Your task to perform on an android device: snooze an email in the gmail app Image 0: 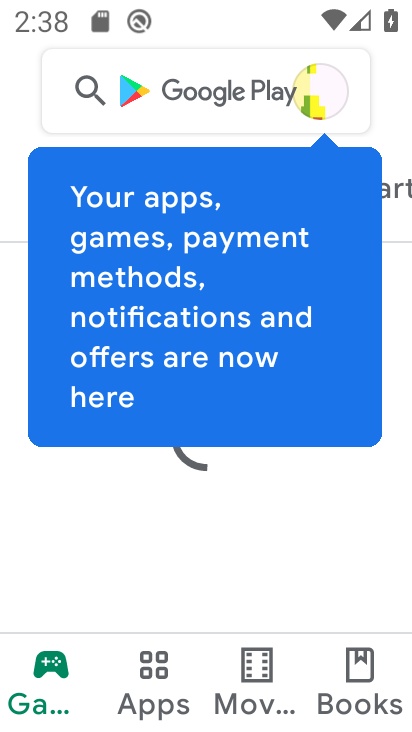
Step 0: press home button
Your task to perform on an android device: snooze an email in the gmail app Image 1: 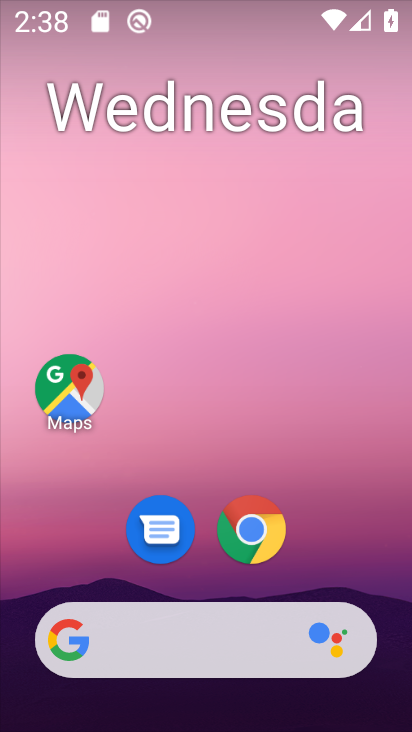
Step 1: drag from (314, 535) to (319, 120)
Your task to perform on an android device: snooze an email in the gmail app Image 2: 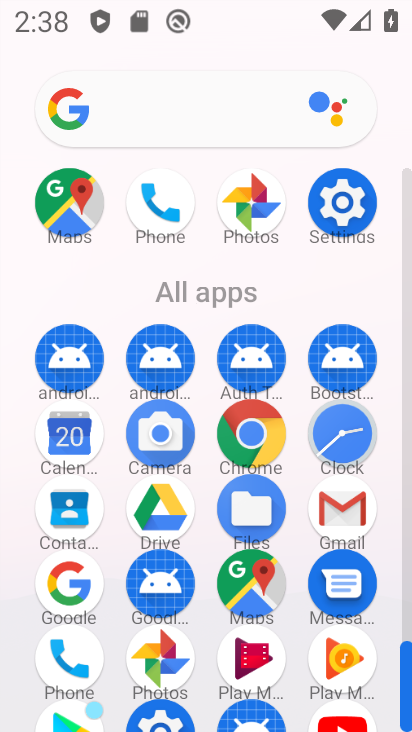
Step 2: click (325, 515)
Your task to perform on an android device: snooze an email in the gmail app Image 3: 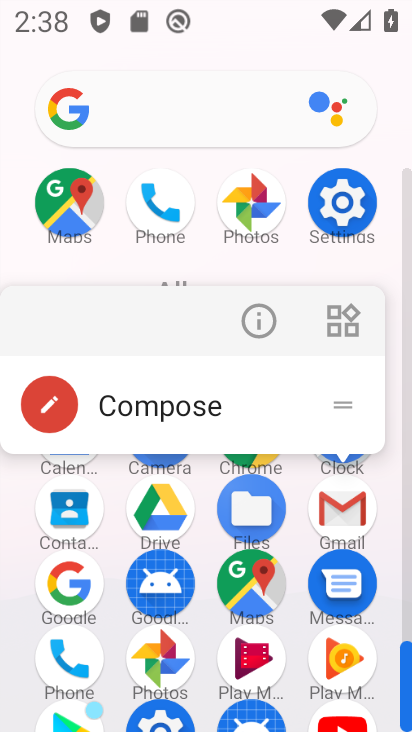
Step 3: click (325, 515)
Your task to perform on an android device: snooze an email in the gmail app Image 4: 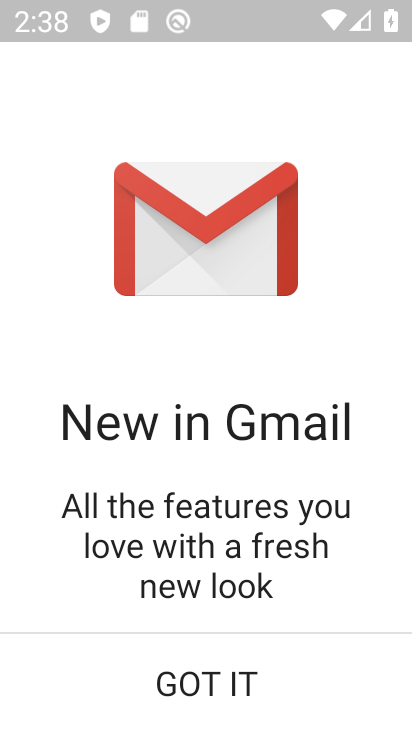
Step 4: click (301, 655)
Your task to perform on an android device: snooze an email in the gmail app Image 5: 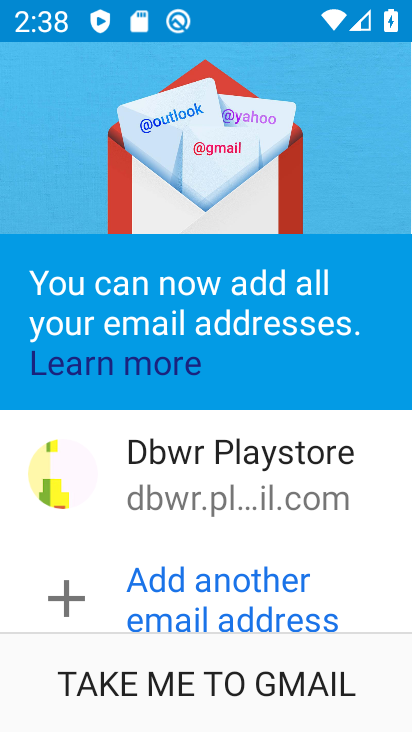
Step 5: click (293, 663)
Your task to perform on an android device: snooze an email in the gmail app Image 6: 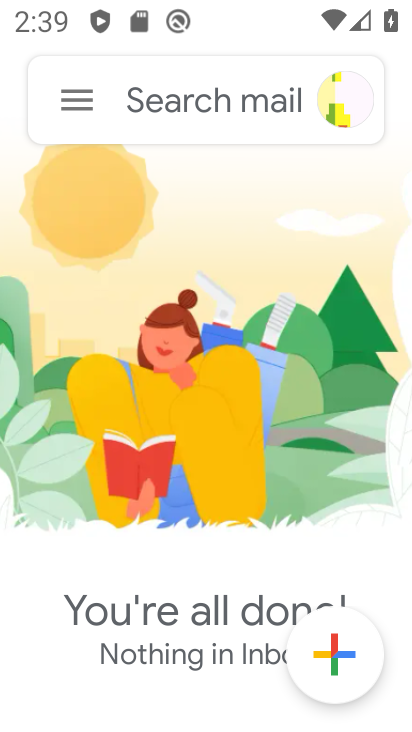
Step 6: click (78, 92)
Your task to perform on an android device: snooze an email in the gmail app Image 7: 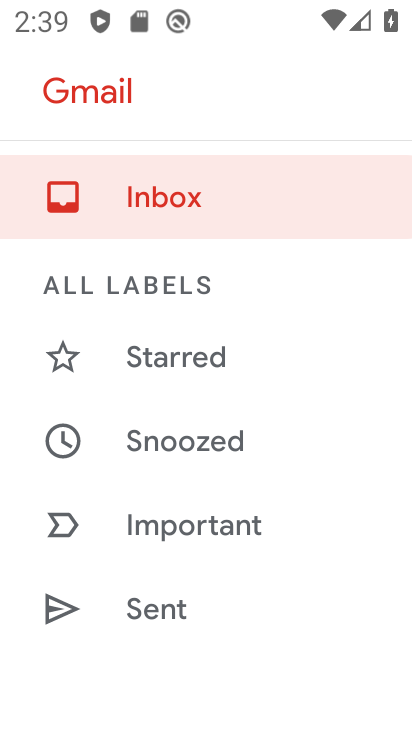
Step 7: drag from (224, 562) to (222, 237)
Your task to perform on an android device: snooze an email in the gmail app Image 8: 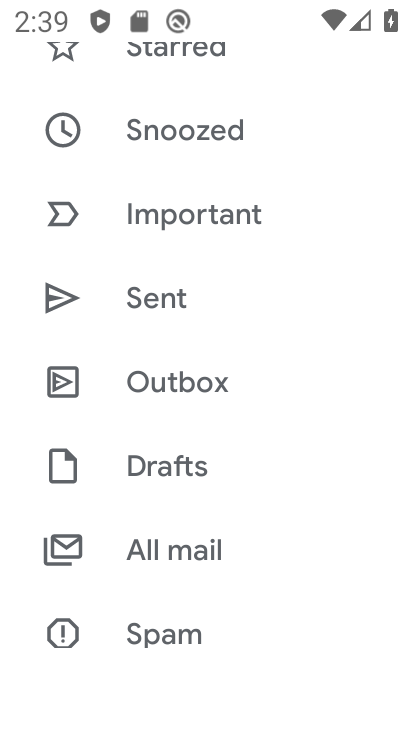
Step 8: click (216, 557)
Your task to perform on an android device: snooze an email in the gmail app Image 9: 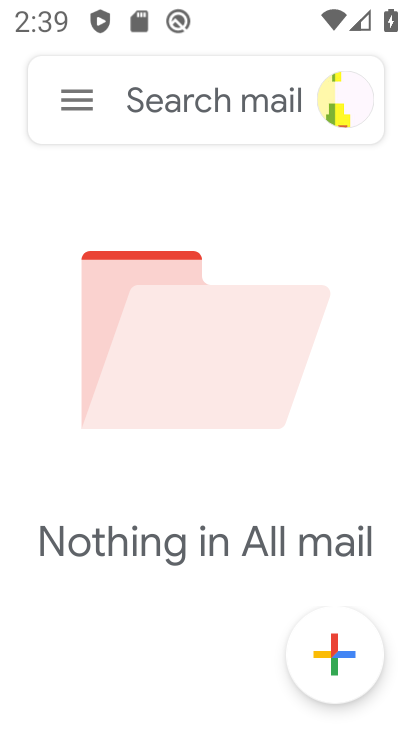
Step 9: task complete